Your task to perform on an android device: Is it going to rain today? Image 0: 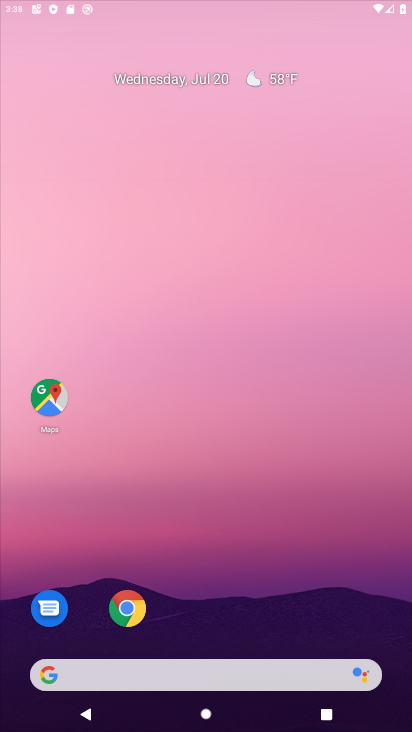
Step 0: drag from (248, 621) to (226, 182)
Your task to perform on an android device: Is it going to rain today? Image 1: 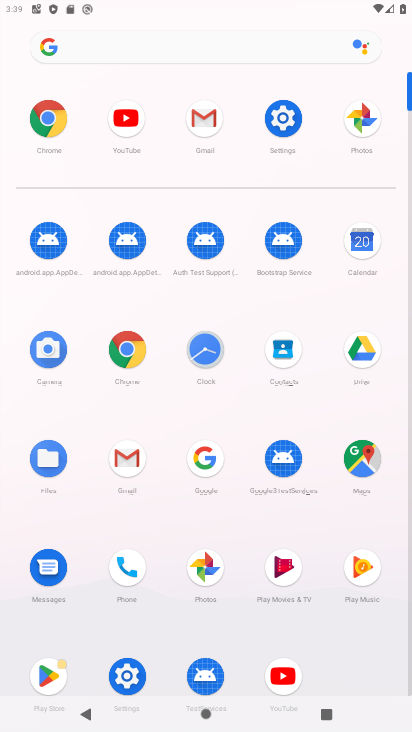
Step 1: click (180, 36)
Your task to perform on an android device: Is it going to rain today? Image 2: 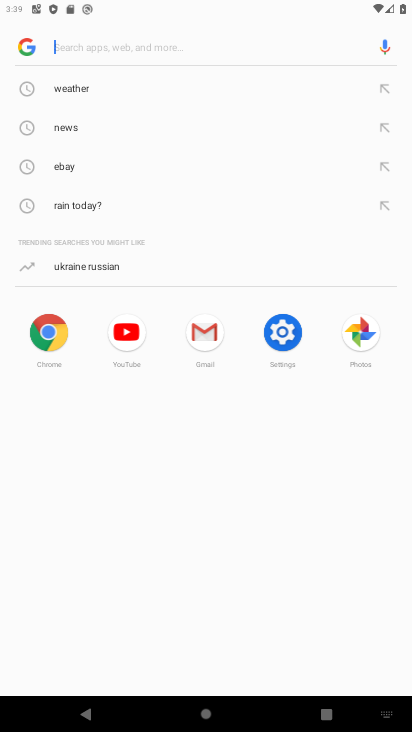
Step 2: click (117, 93)
Your task to perform on an android device: Is it going to rain today? Image 3: 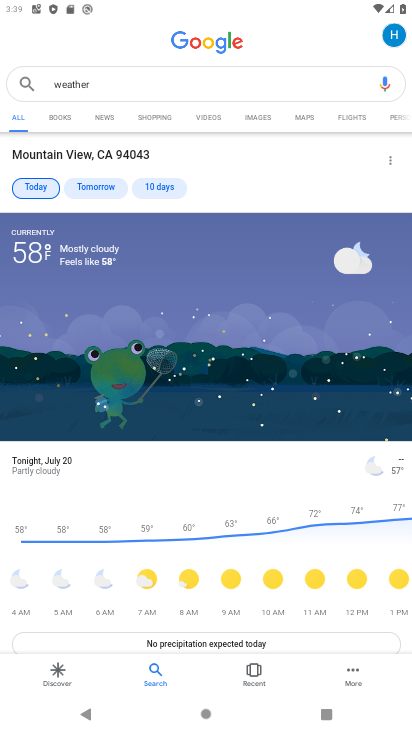
Step 3: task complete